Your task to perform on an android device: Search for "dell alienware" on ebay.com, select the first entry, and add it to the cart. Image 0: 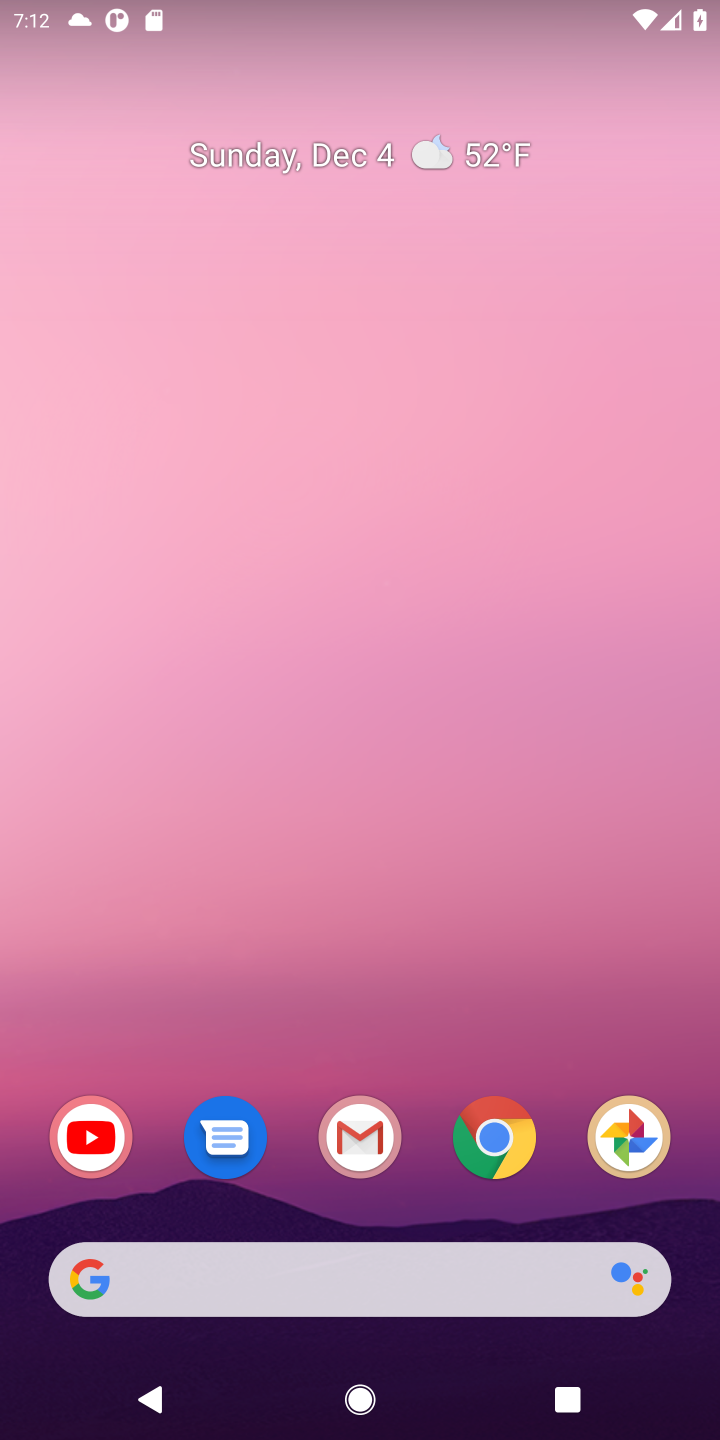
Step 0: click (490, 1141)
Your task to perform on an android device: Search for "dell alienware" on ebay.com, select the first entry, and add it to the cart. Image 1: 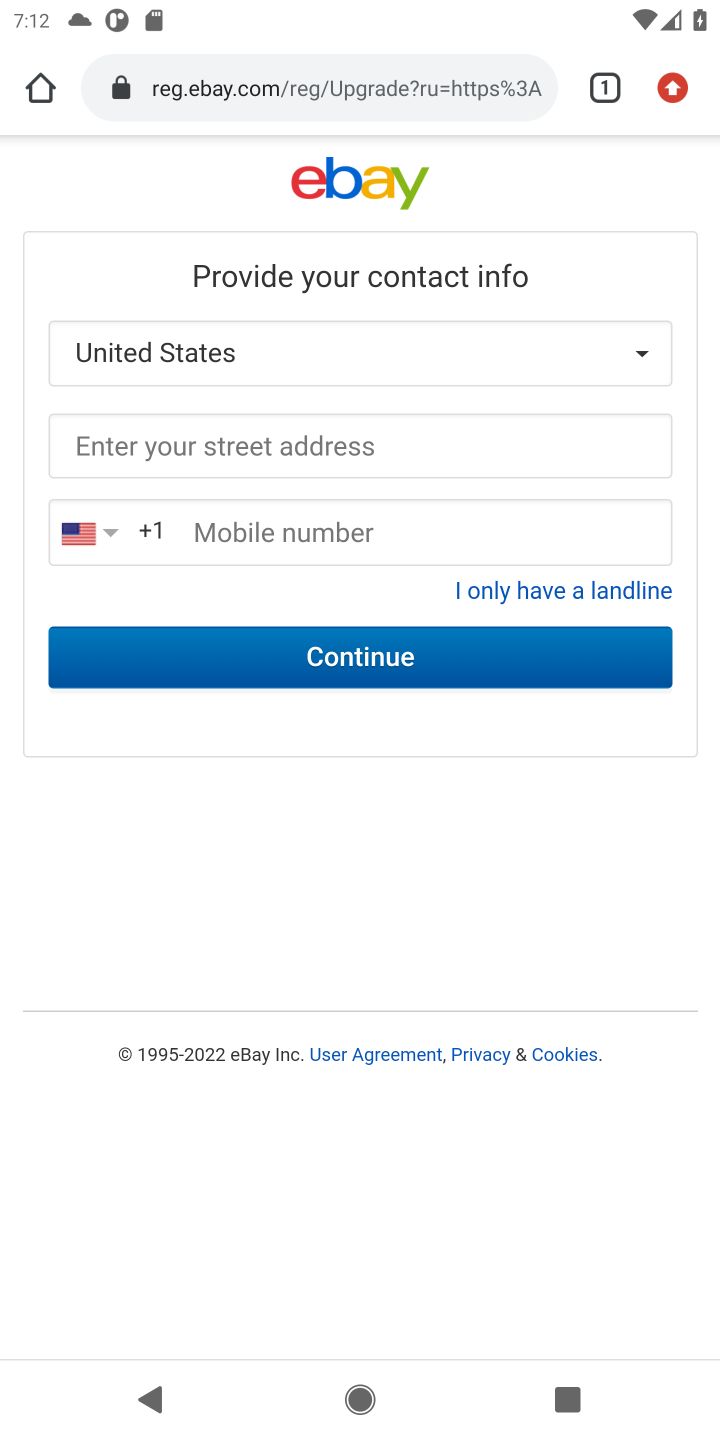
Step 1: press back button
Your task to perform on an android device: Search for "dell alienware" on ebay.com, select the first entry, and add it to the cart. Image 2: 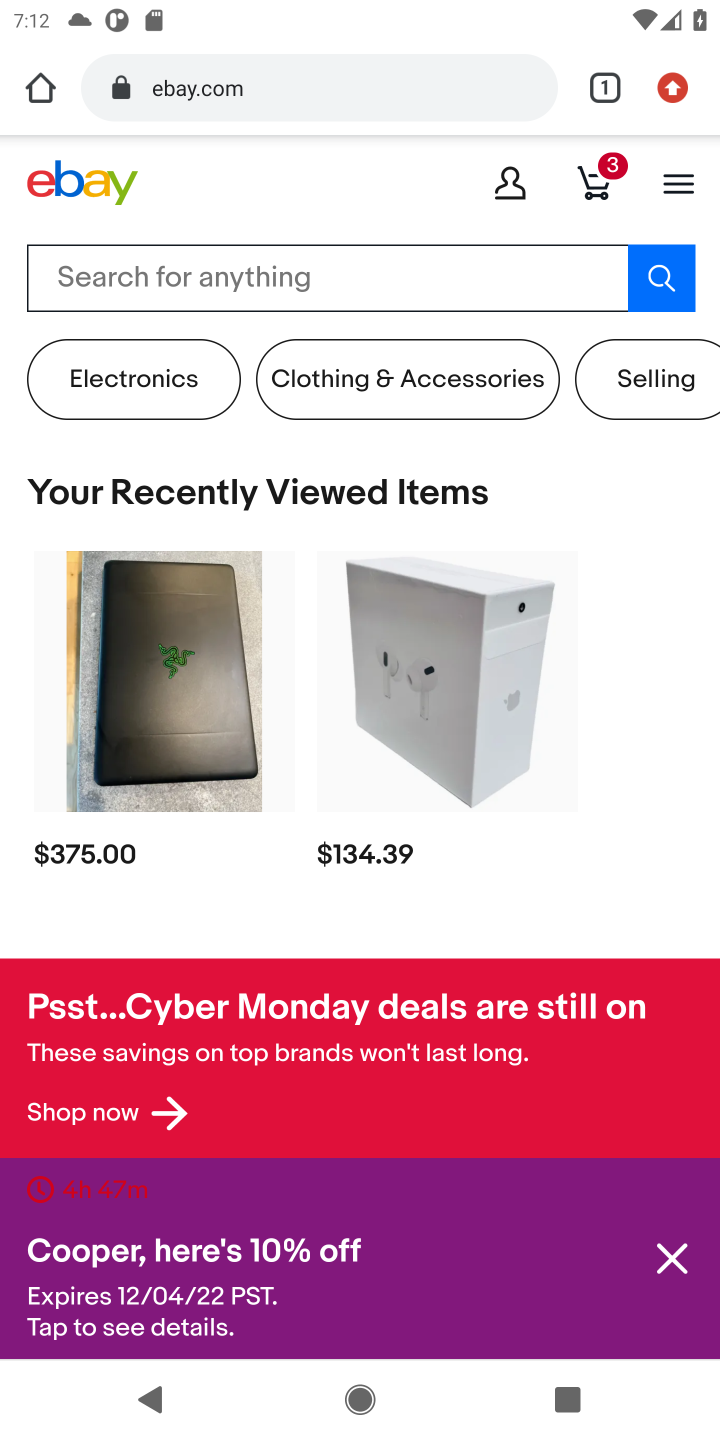
Step 2: click (232, 268)
Your task to perform on an android device: Search for "dell alienware" on ebay.com, select the first entry, and add it to the cart. Image 3: 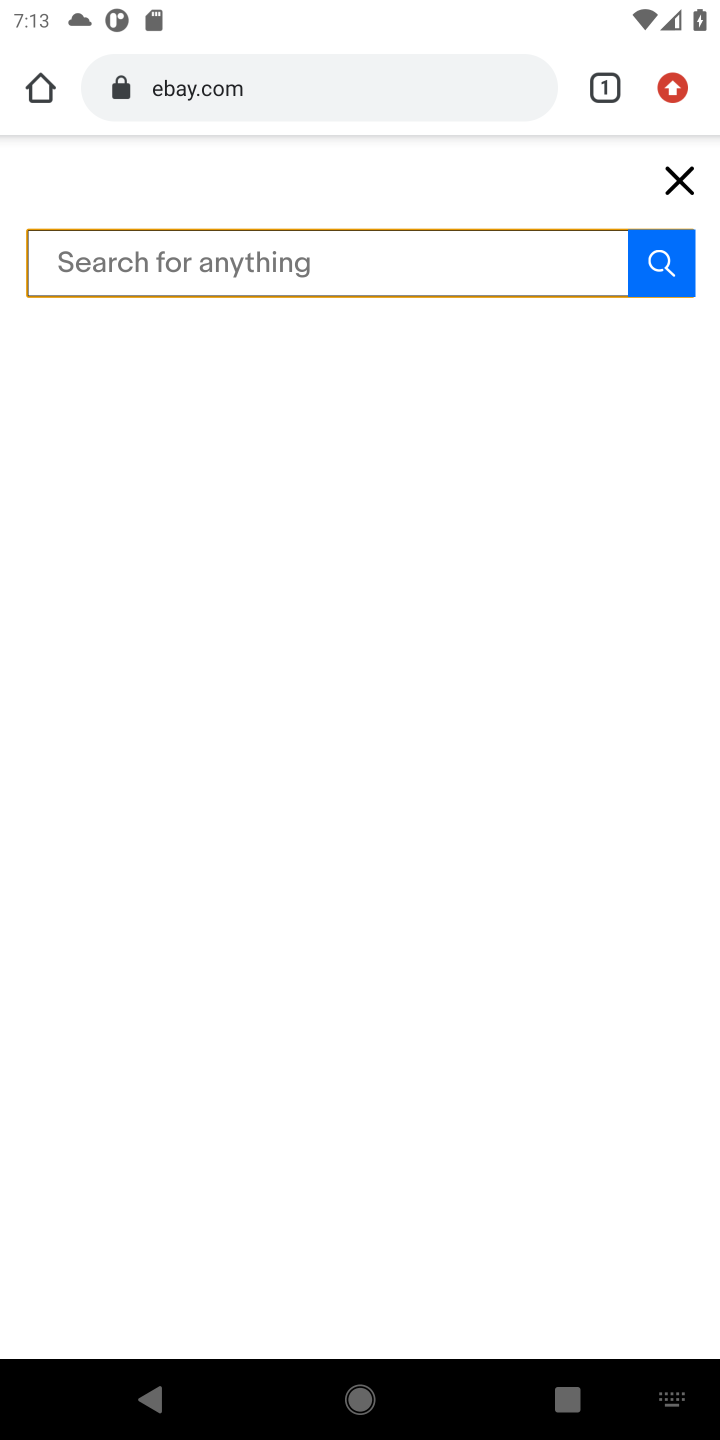
Step 3: type "dell alienware"
Your task to perform on an android device: Search for "dell alienware" on ebay.com, select the first entry, and add it to the cart. Image 4: 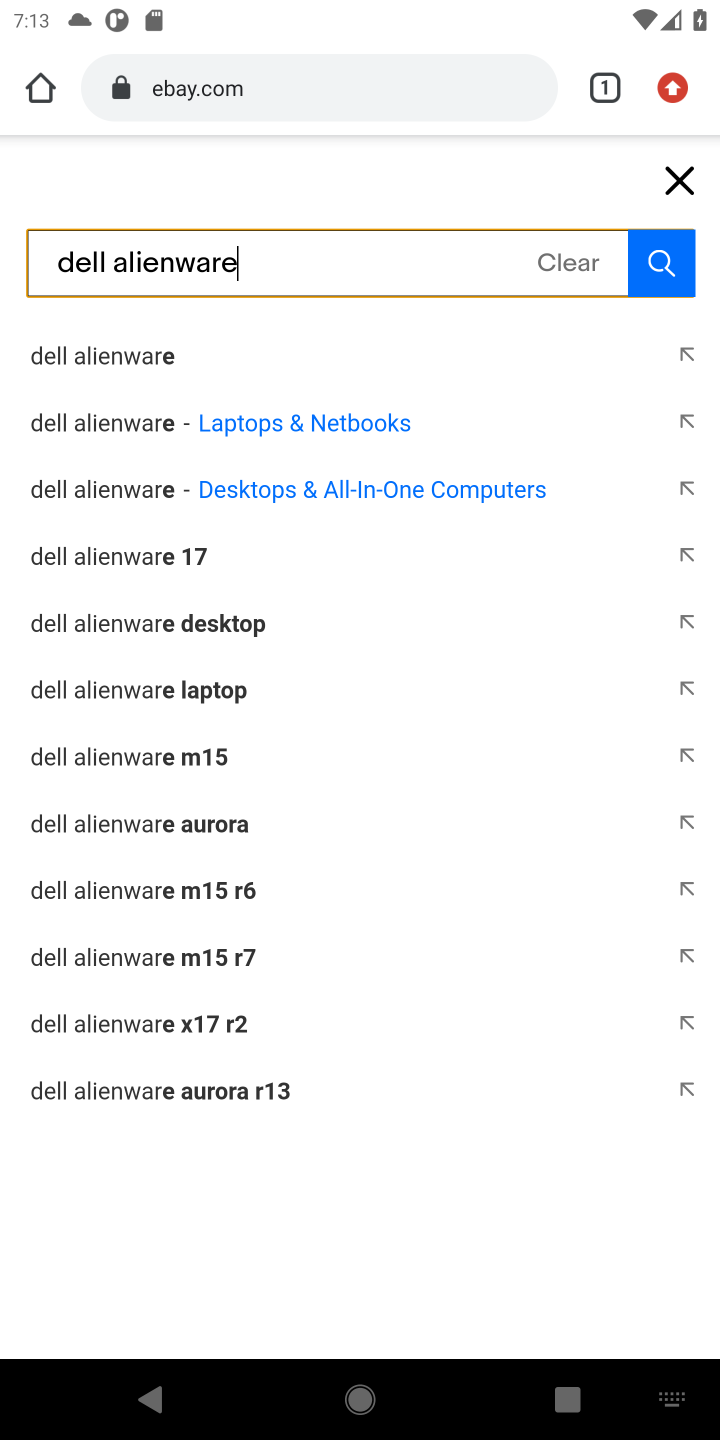
Step 4: click (101, 354)
Your task to perform on an android device: Search for "dell alienware" on ebay.com, select the first entry, and add it to the cart. Image 5: 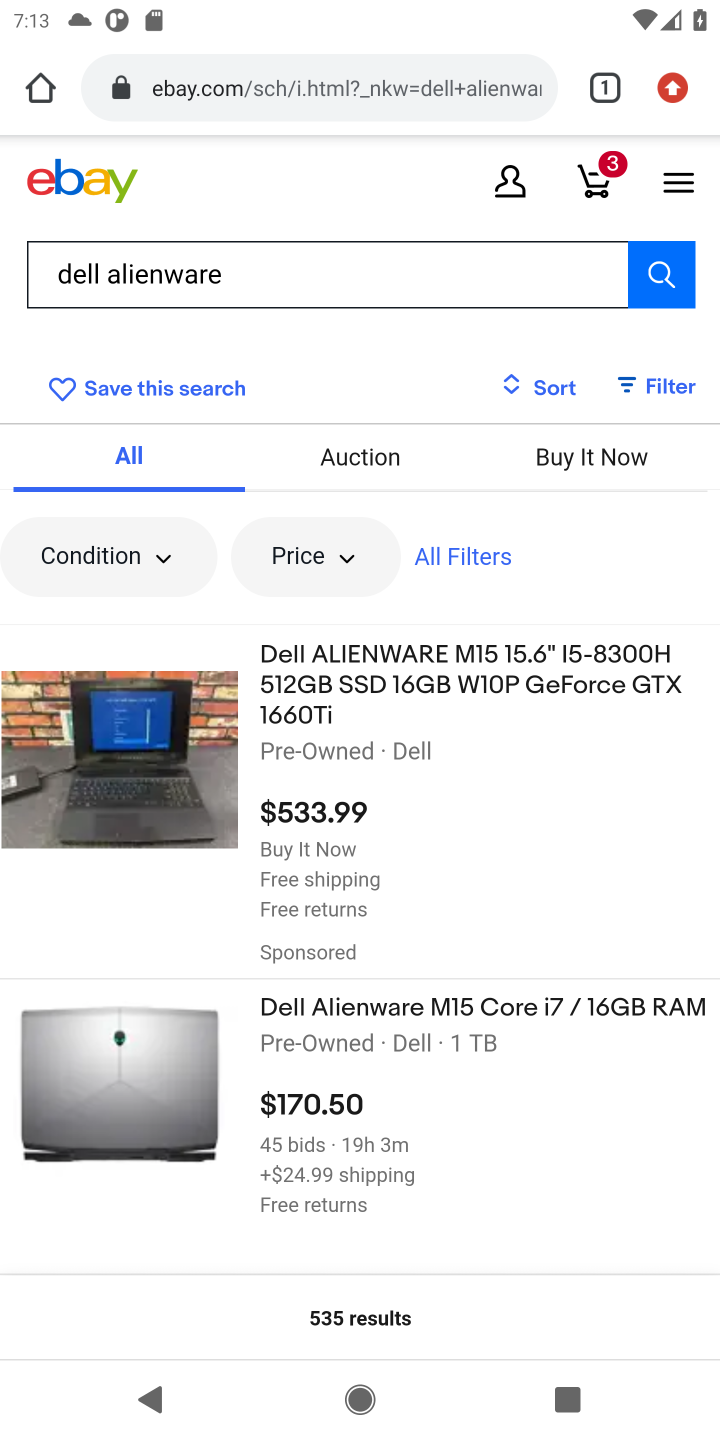
Step 5: click (318, 676)
Your task to perform on an android device: Search for "dell alienware" on ebay.com, select the first entry, and add it to the cart. Image 6: 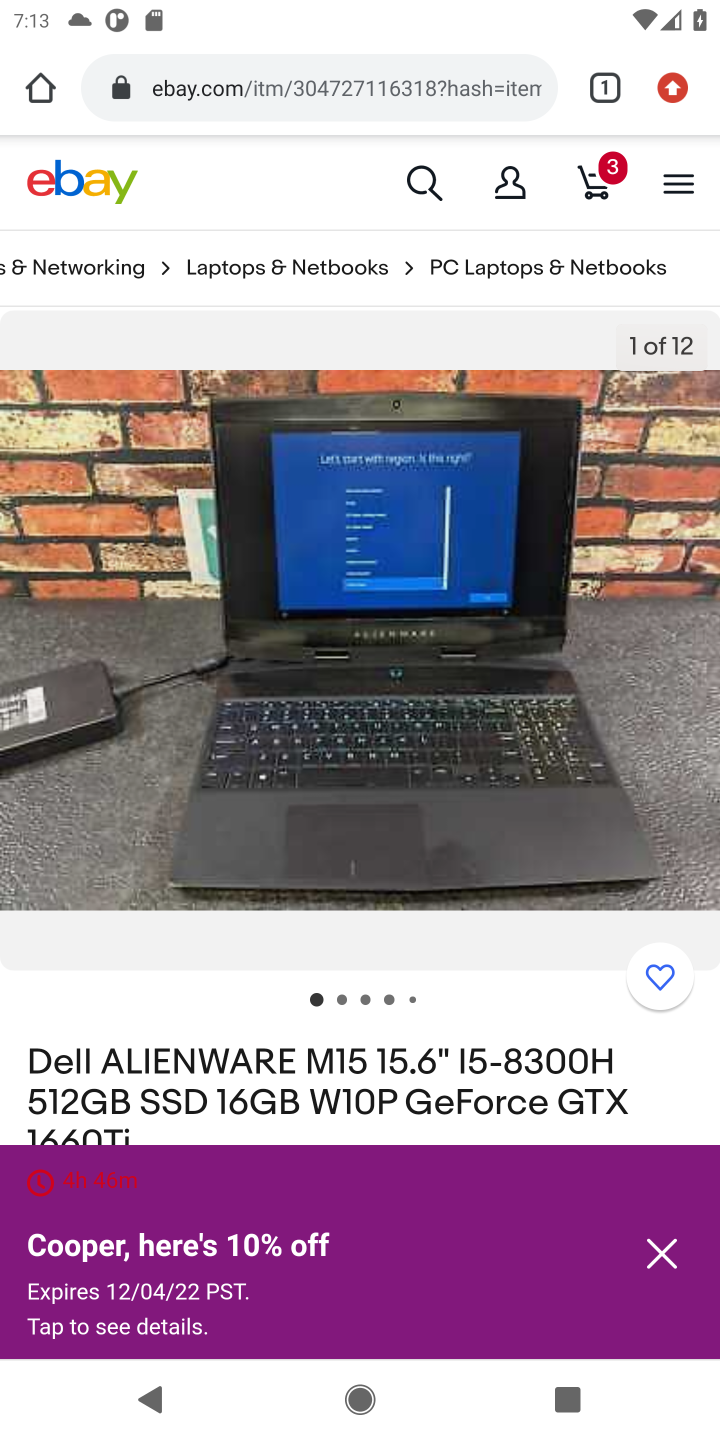
Step 6: drag from (437, 1045) to (334, 251)
Your task to perform on an android device: Search for "dell alienware" on ebay.com, select the first entry, and add it to the cart. Image 7: 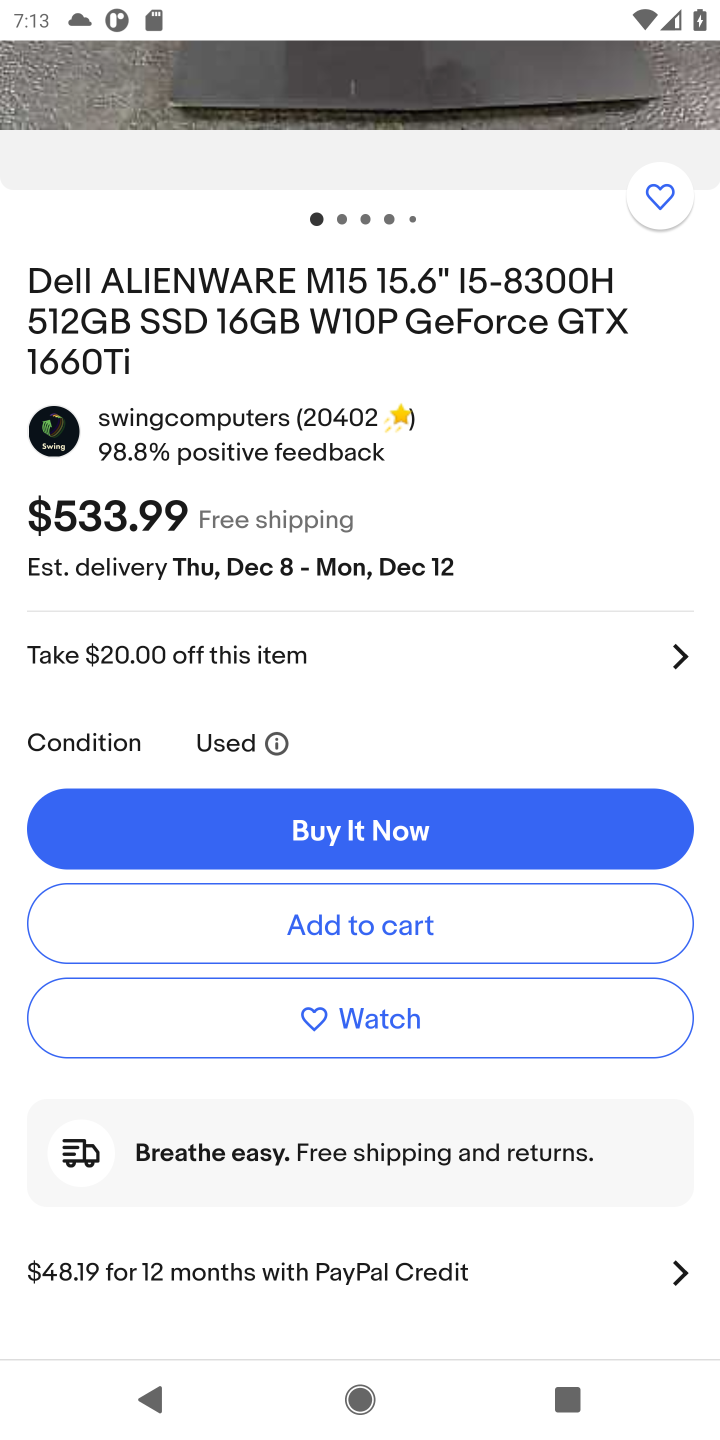
Step 7: click (358, 926)
Your task to perform on an android device: Search for "dell alienware" on ebay.com, select the first entry, and add it to the cart. Image 8: 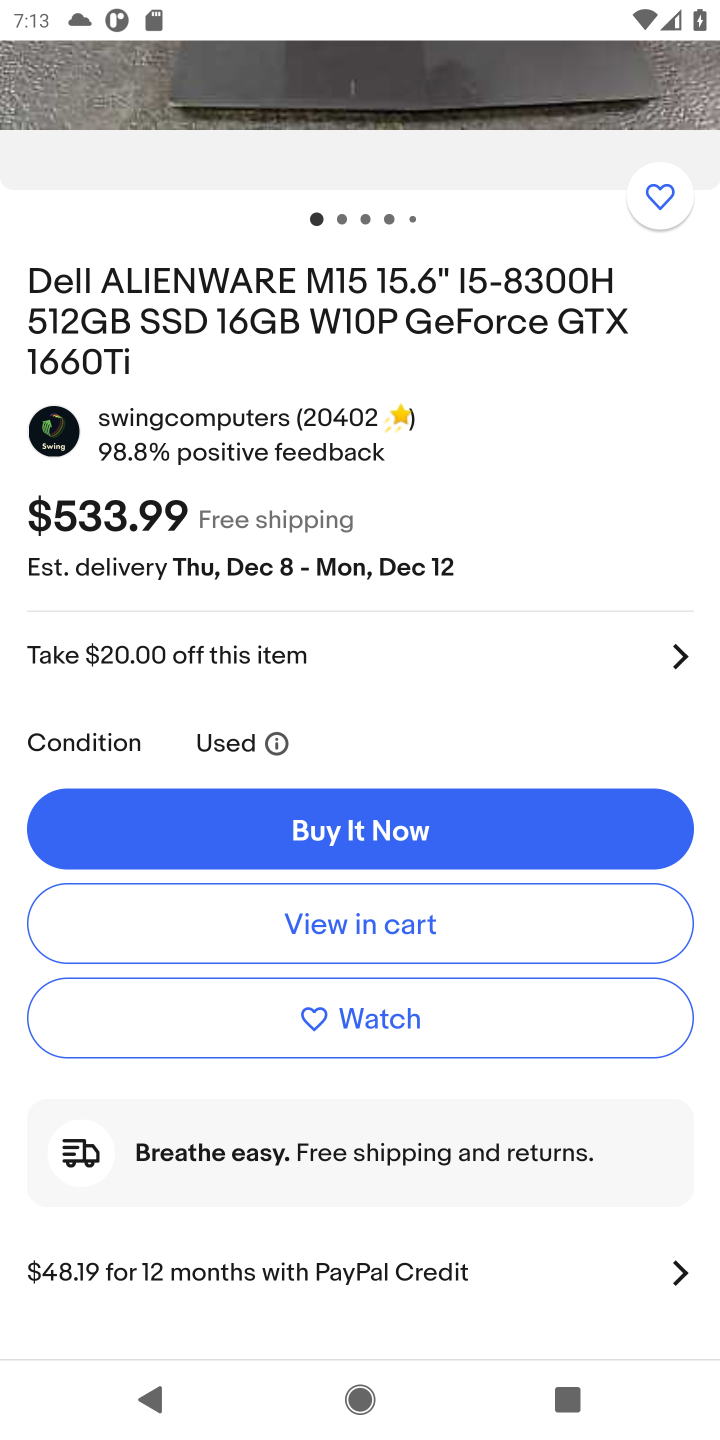
Step 8: task complete